Your task to perform on an android device: When is my next appointment? Image 0: 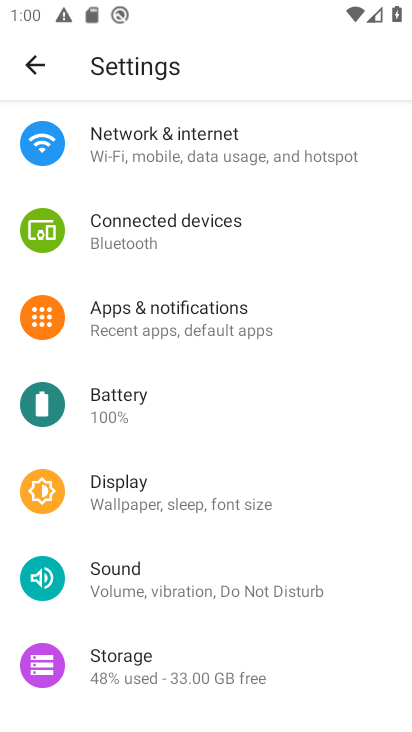
Step 0: press home button
Your task to perform on an android device: When is my next appointment? Image 1: 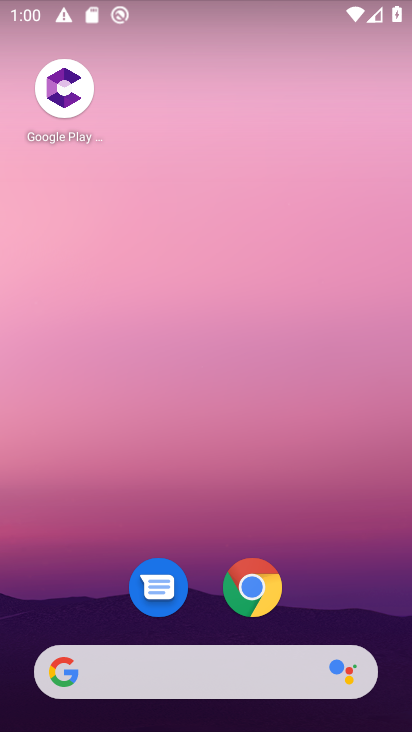
Step 1: drag from (169, 656) to (202, 254)
Your task to perform on an android device: When is my next appointment? Image 2: 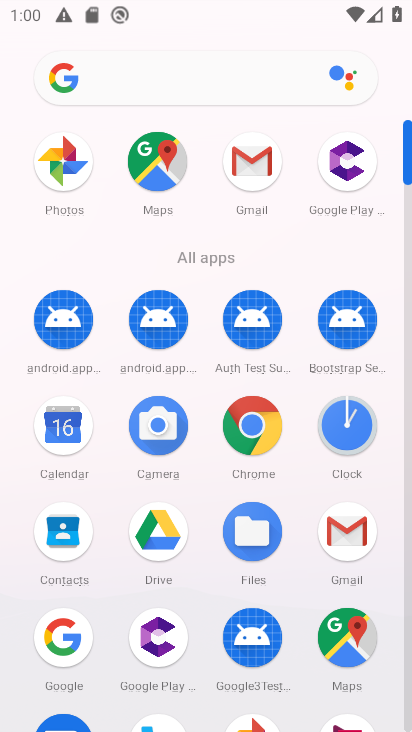
Step 2: drag from (220, 642) to (238, 229)
Your task to perform on an android device: When is my next appointment? Image 3: 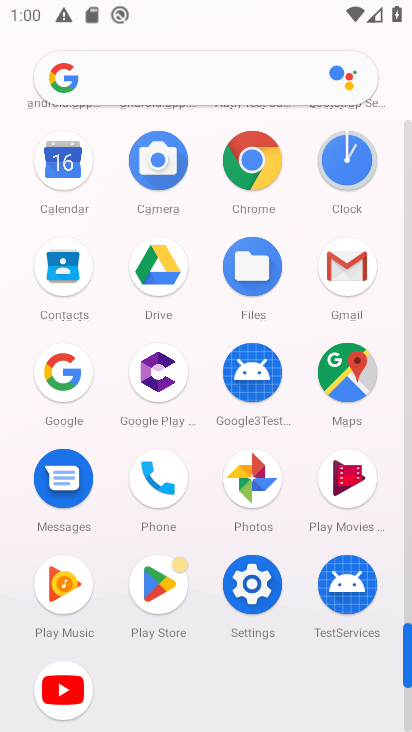
Step 3: click (57, 168)
Your task to perform on an android device: When is my next appointment? Image 4: 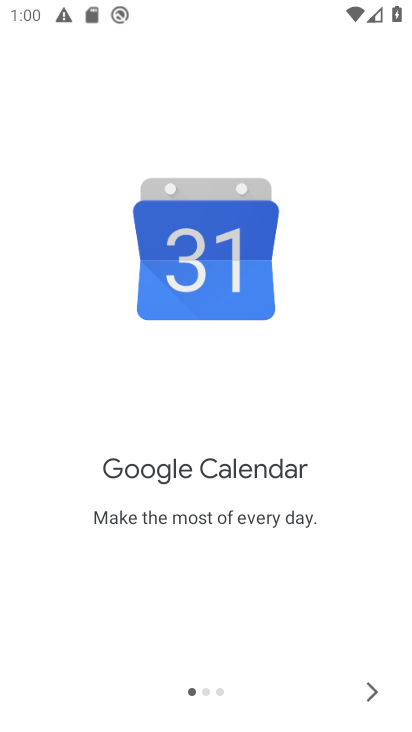
Step 4: click (367, 695)
Your task to perform on an android device: When is my next appointment? Image 5: 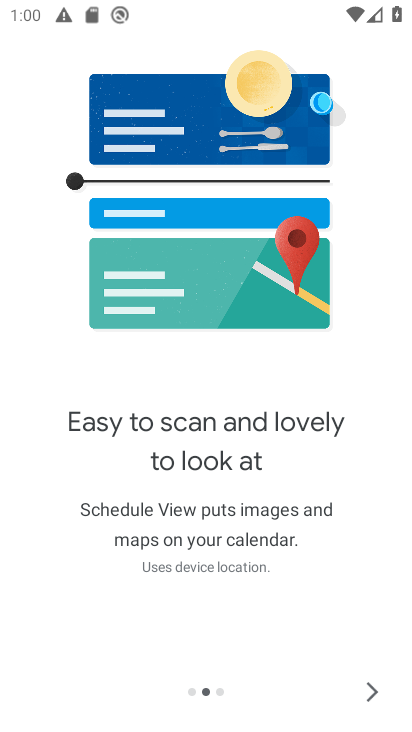
Step 5: click (367, 695)
Your task to perform on an android device: When is my next appointment? Image 6: 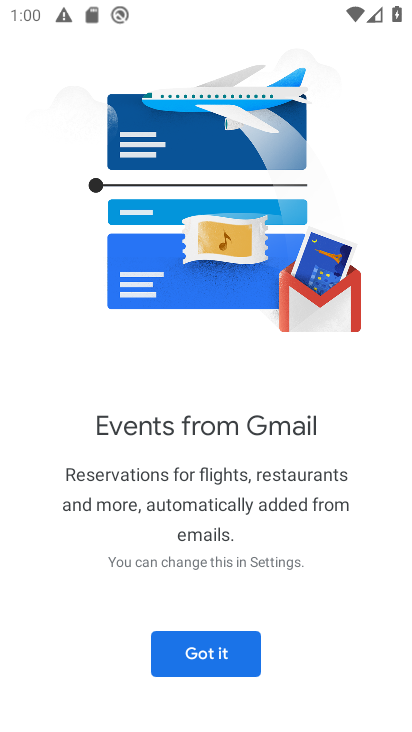
Step 6: click (204, 660)
Your task to perform on an android device: When is my next appointment? Image 7: 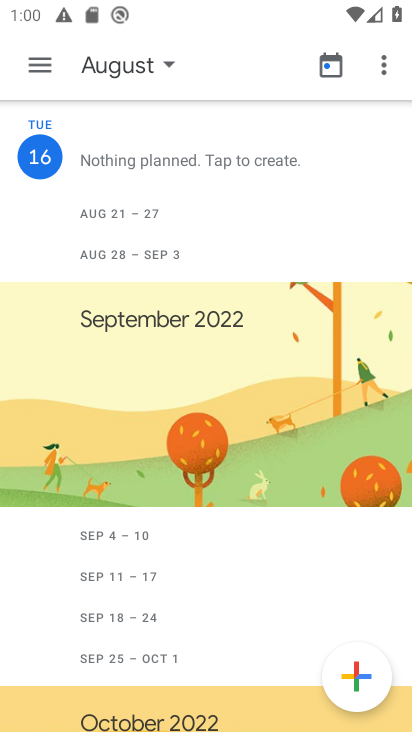
Step 7: task complete